Your task to perform on an android device: Play the last video I watched on Youtube Image 0: 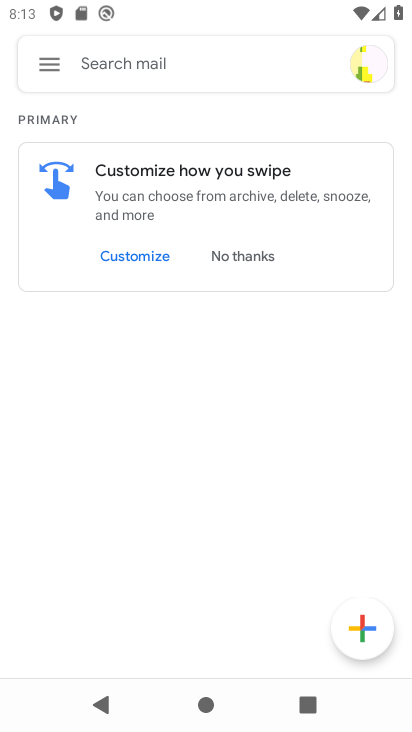
Step 0: press home button
Your task to perform on an android device: Play the last video I watched on Youtube Image 1: 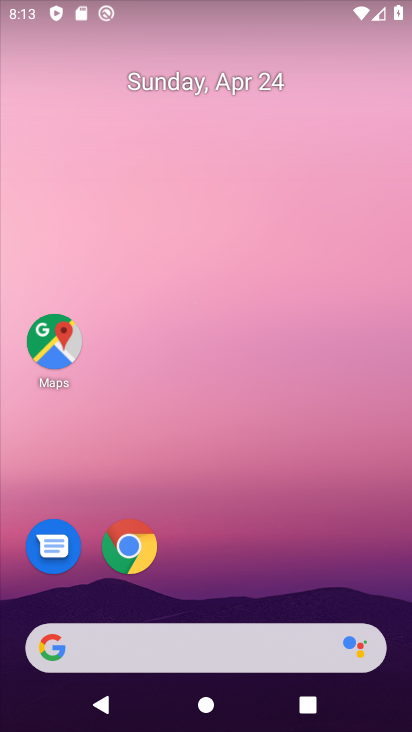
Step 1: drag from (236, 485) to (240, 174)
Your task to perform on an android device: Play the last video I watched on Youtube Image 2: 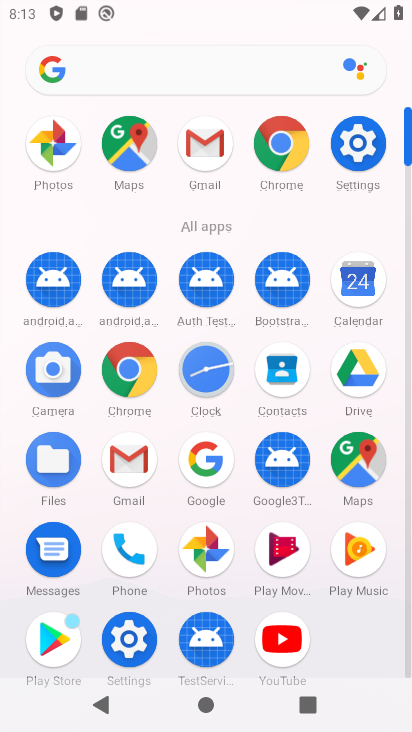
Step 2: click (276, 626)
Your task to perform on an android device: Play the last video I watched on Youtube Image 3: 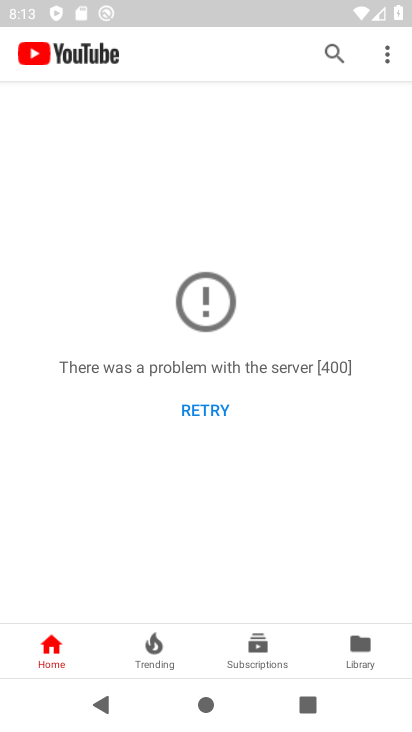
Step 3: click (351, 644)
Your task to perform on an android device: Play the last video I watched on Youtube Image 4: 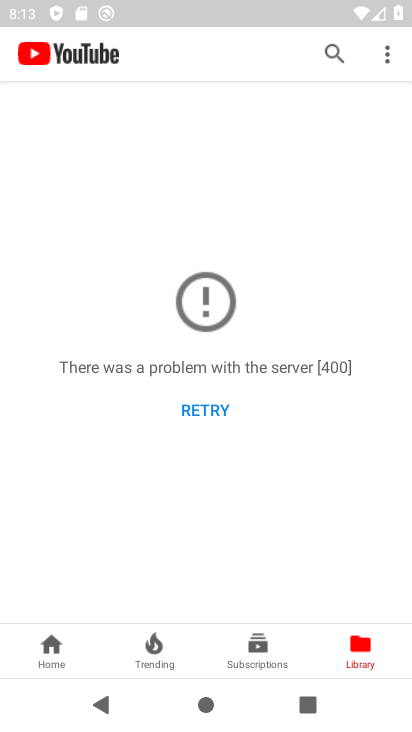
Step 4: task complete